Your task to perform on an android device: change notifications settings Image 0: 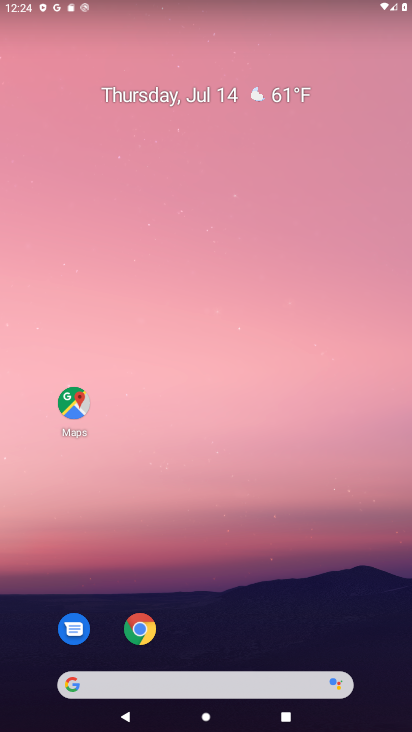
Step 0: drag from (186, 637) to (158, 129)
Your task to perform on an android device: change notifications settings Image 1: 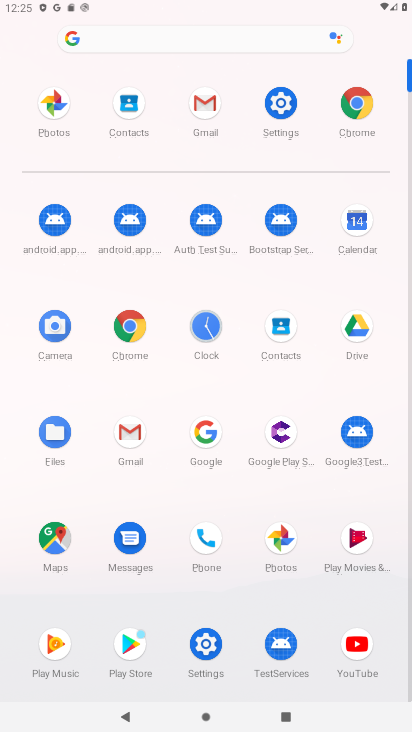
Step 1: click (281, 101)
Your task to perform on an android device: change notifications settings Image 2: 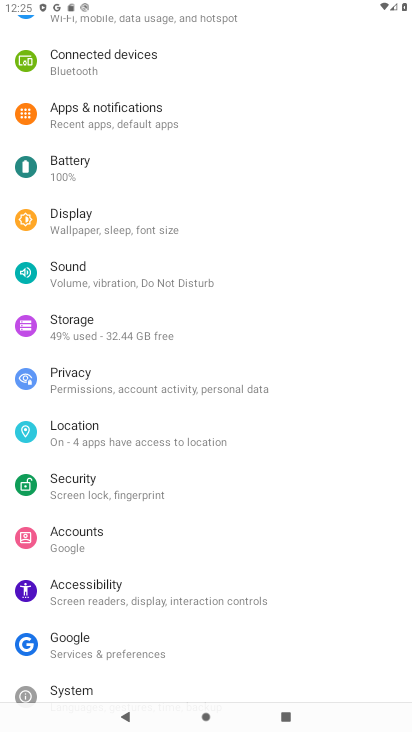
Step 2: click (219, 112)
Your task to perform on an android device: change notifications settings Image 3: 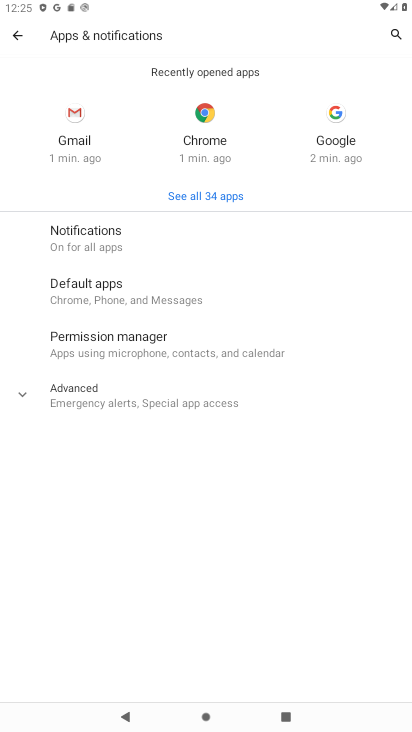
Step 3: click (104, 231)
Your task to perform on an android device: change notifications settings Image 4: 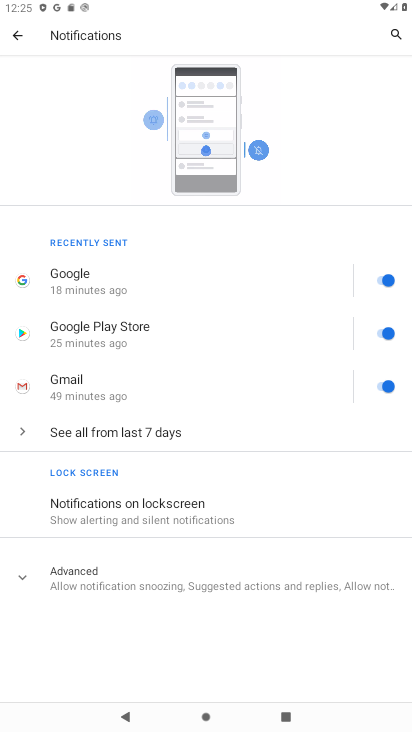
Step 4: click (180, 562)
Your task to perform on an android device: change notifications settings Image 5: 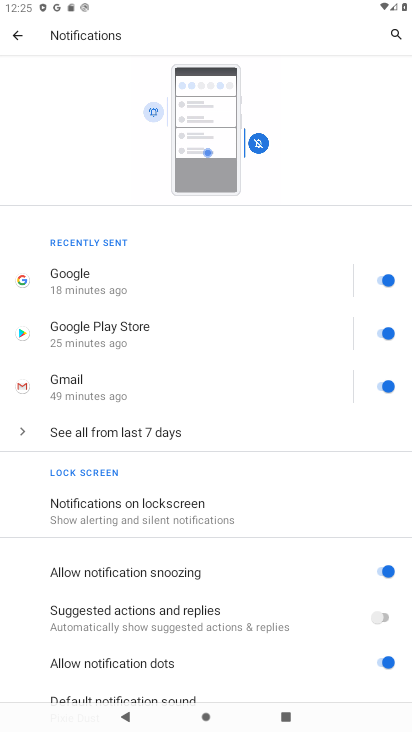
Step 5: click (386, 625)
Your task to perform on an android device: change notifications settings Image 6: 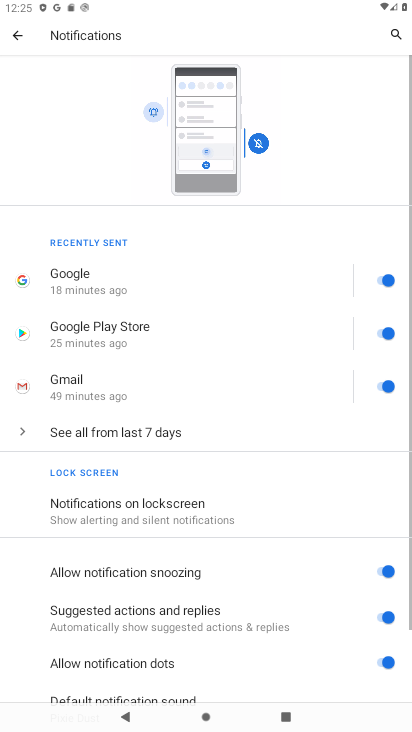
Step 6: click (383, 660)
Your task to perform on an android device: change notifications settings Image 7: 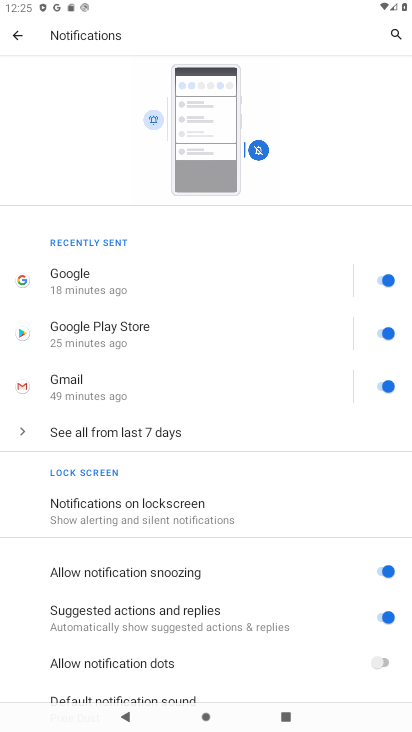
Step 7: task complete